Your task to perform on an android device: turn vacation reply on in the gmail app Image 0: 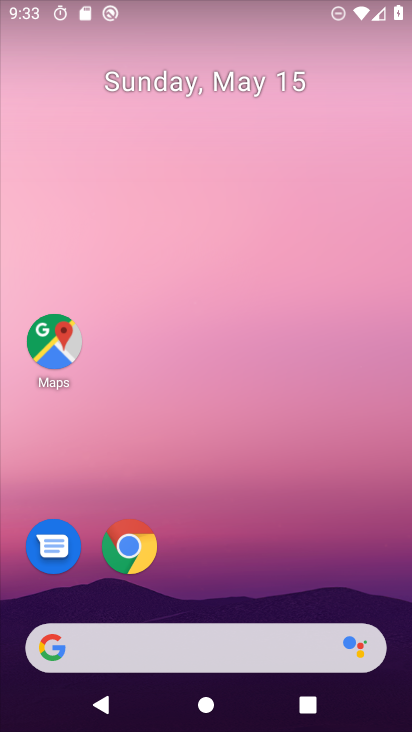
Step 0: drag from (226, 521) to (226, 59)
Your task to perform on an android device: turn vacation reply on in the gmail app Image 1: 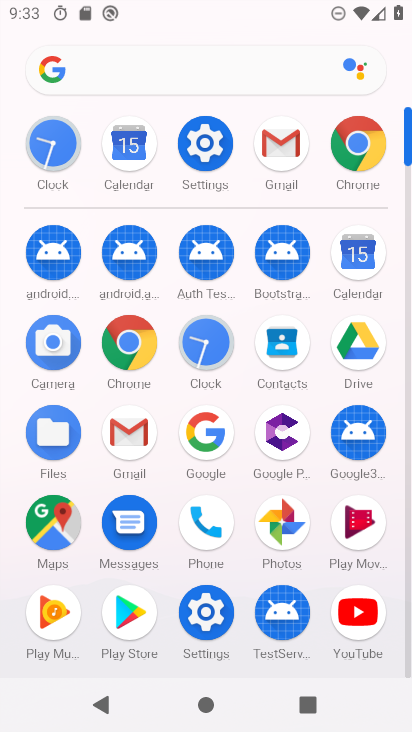
Step 1: click (276, 129)
Your task to perform on an android device: turn vacation reply on in the gmail app Image 2: 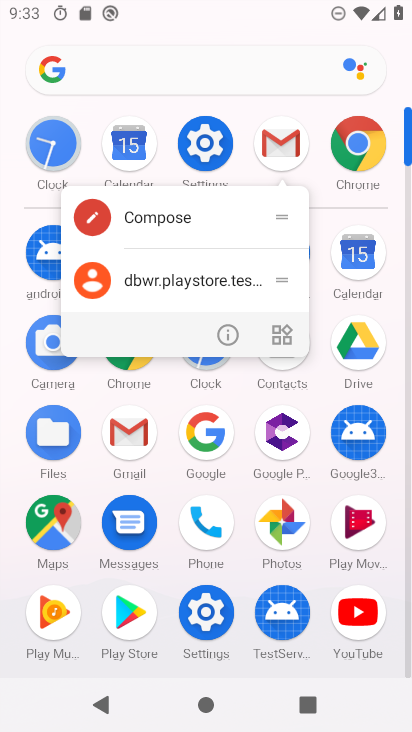
Step 2: click (274, 140)
Your task to perform on an android device: turn vacation reply on in the gmail app Image 3: 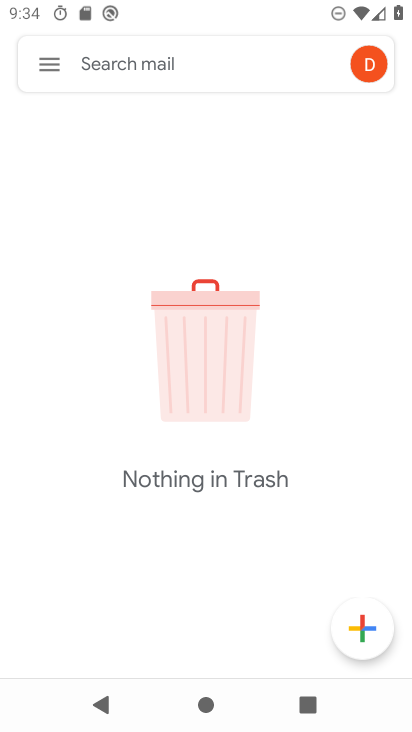
Step 3: press home button
Your task to perform on an android device: turn vacation reply on in the gmail app Image 4: 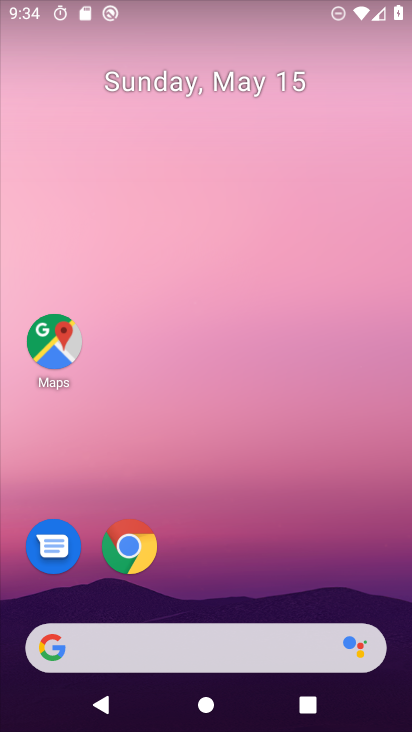
Step 4: drag from (271, 550) to (259, 71)
Your task to perform on an android device: turn vacation reply on in the gmail app Image 5: 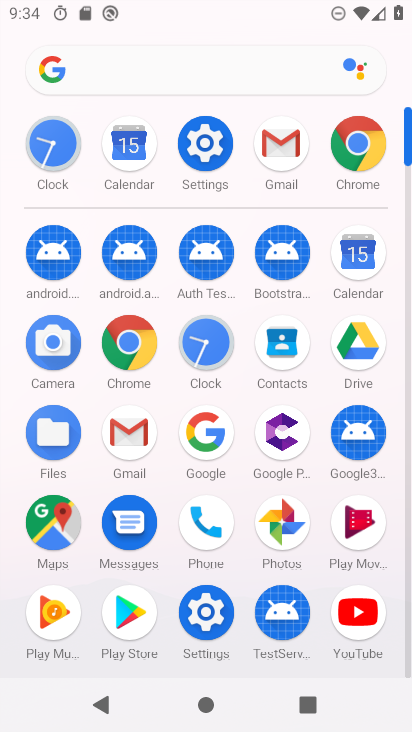
Step 5: click (269, 142)
Your task to perform on an android device: turn vacation reply on in the gmail app Image 6: 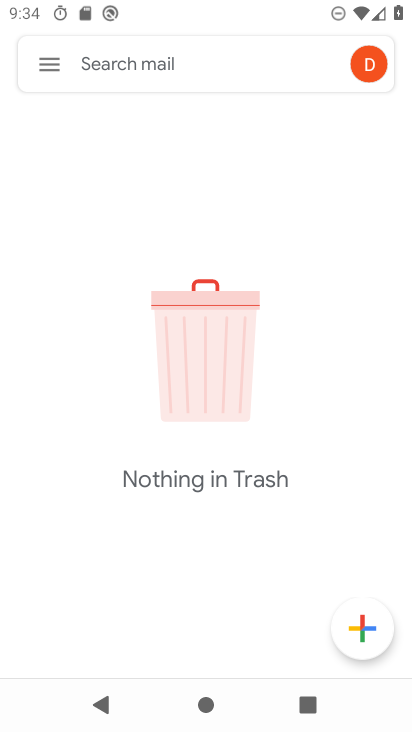
Step 6: click (51, 65)
Your task to perform on an android device: turn vacation reply on in the gmail app Image 7: 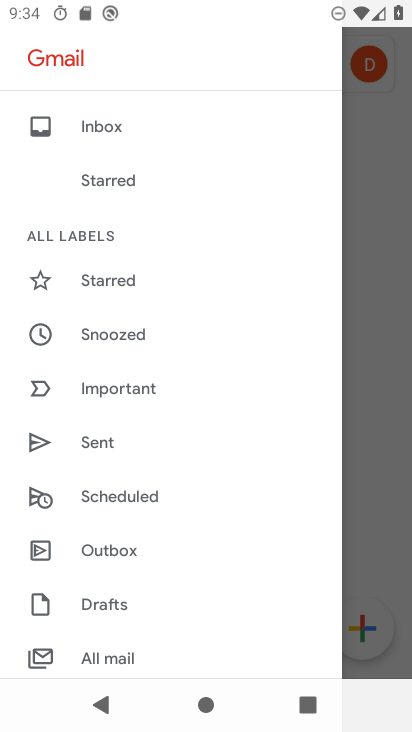
Step 7: drag from (171, 569) to (167, 150)
Your task to perform on an android device: turn vacation reply on in the gmail app Image 8: 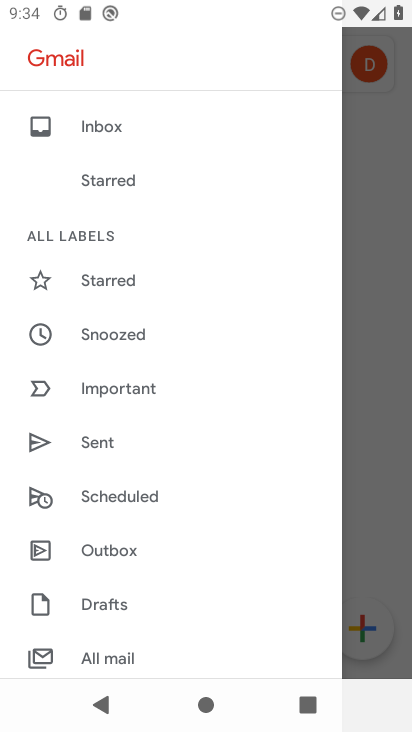
Step 8: drag from (153, 505) to (191, 128)
Your task to perform on an android device: turn vacation reply on in the gmail app Image 9: 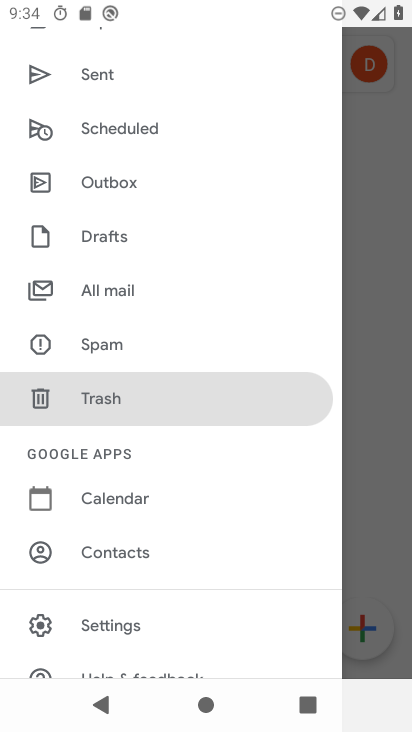
Step 9: click (134, 618)
Your task to perform on an android device: turn vacation reply on in the gmail app Image 10: 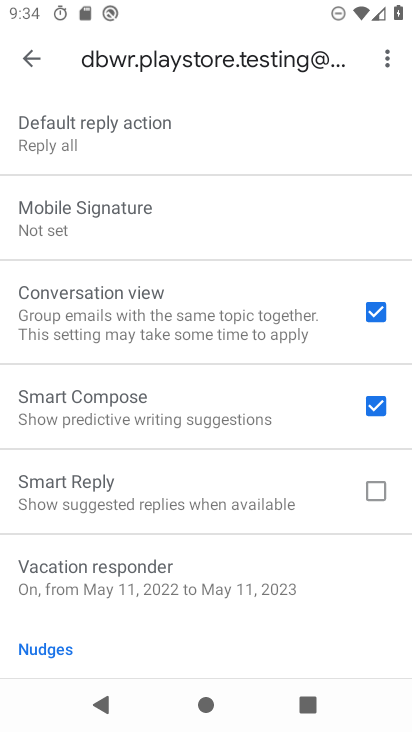
Step 10: drag from (201, 515) to (277, 164)
Your task to perform on an android device: turn vacation reply on in the gmail app Image 11: 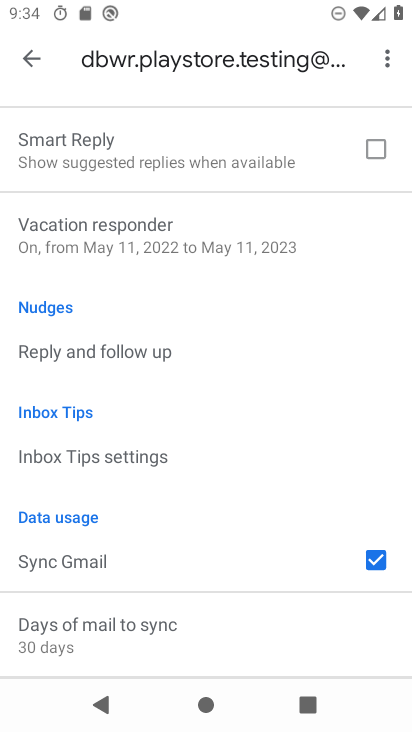
Step 11: drag from (231, 510) to (221, 111)
Your task to perform on an android device: turn vacation reply on in the gmail app Image 12: 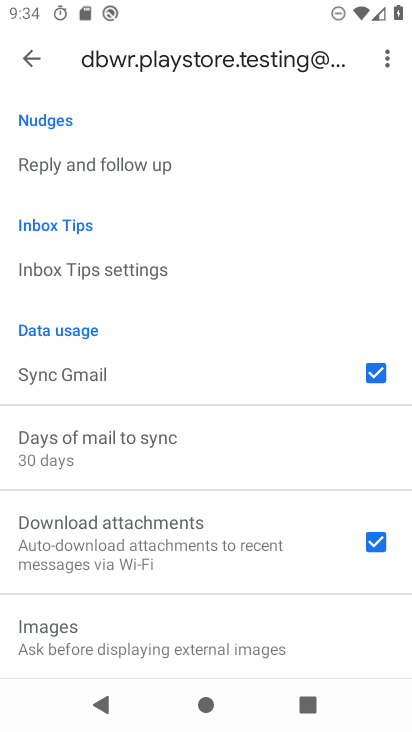
Step 12: drag from (213, 163) to (236, 531)
Your task to perform on an android device: turn vacation reply on in the gmail app Image 13: 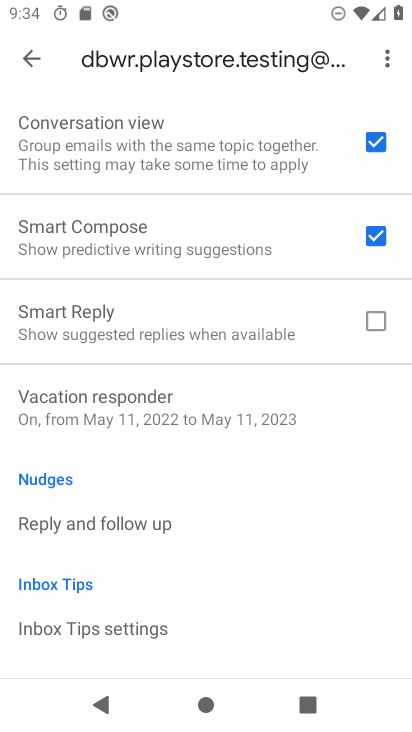
Step 13: click (229, 407)
Your task to perform on an android device: turn vacation reply on in the gmail app Image 14: 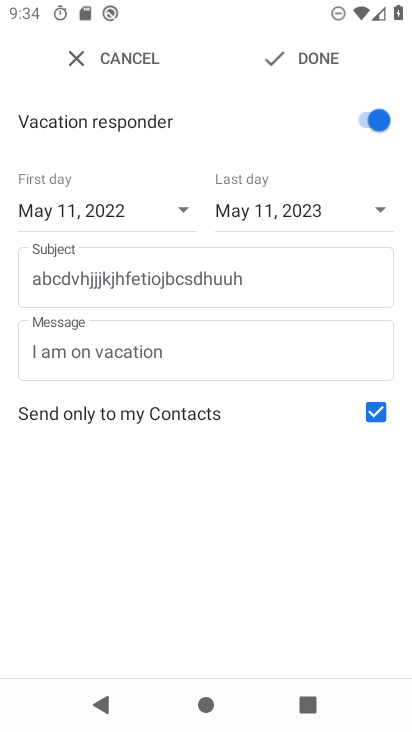
Step 14: task complete